Your task to perform on an android device: Open the phone app and click the voicemail tab. Image 0: 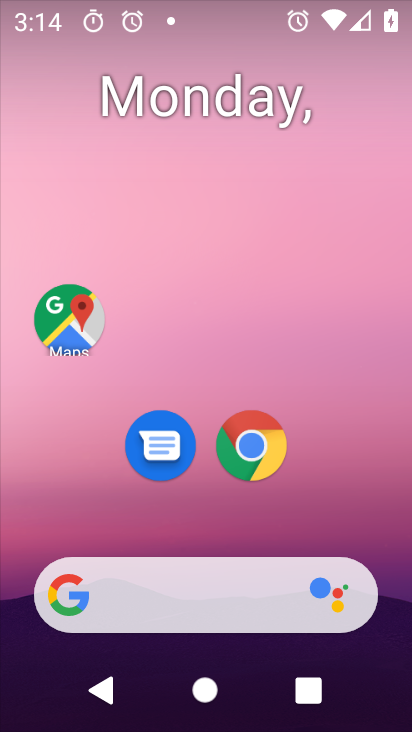
Step 0: drag from (194, 607) to (220, 212)
Your task to perform on an android device: Open the phone app and click the voicemail tab. Image 1: 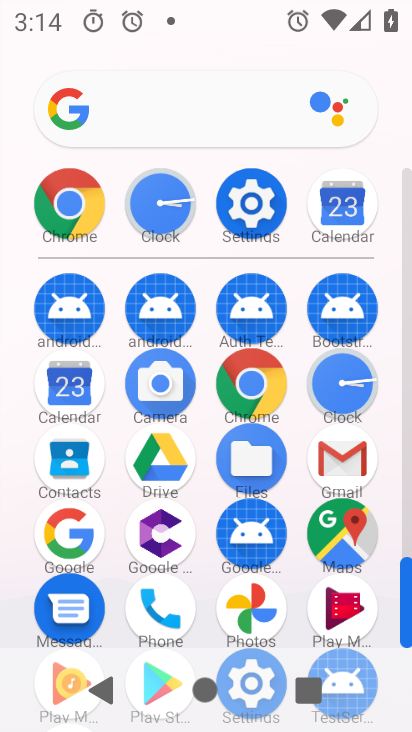
Step 1: click (153, 608)
Your task to perform on an android device: Open the phone app and click the voicemail tab. Image 2: 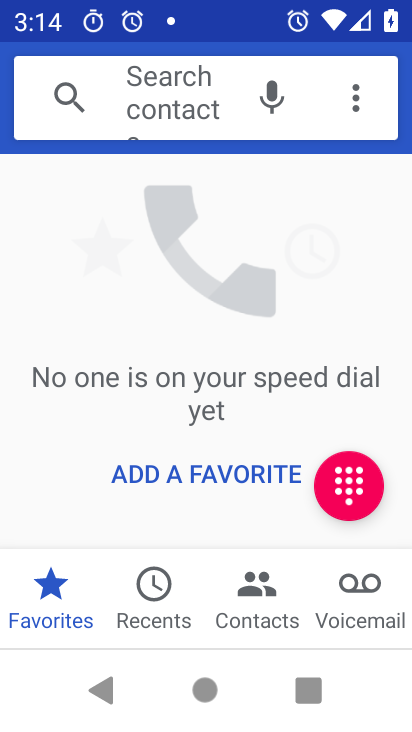
Step 2: click (387, 603)
Your task to perform on an android device: Open the phone app and click the voicemail tab. Image 3: 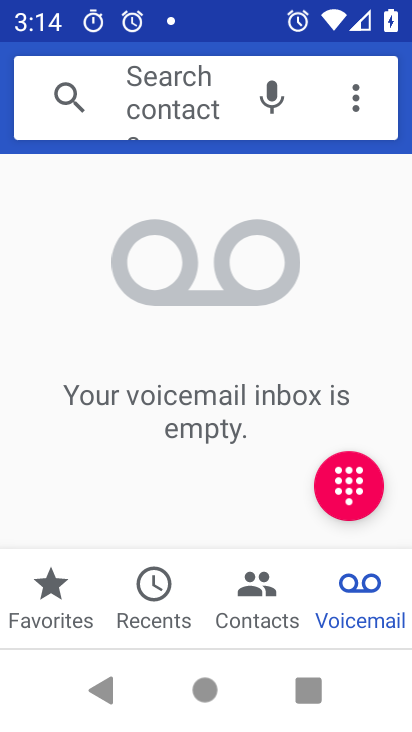
Step 3: task complete